Your task to perform on an android device: Open Google Chrome Image 0: 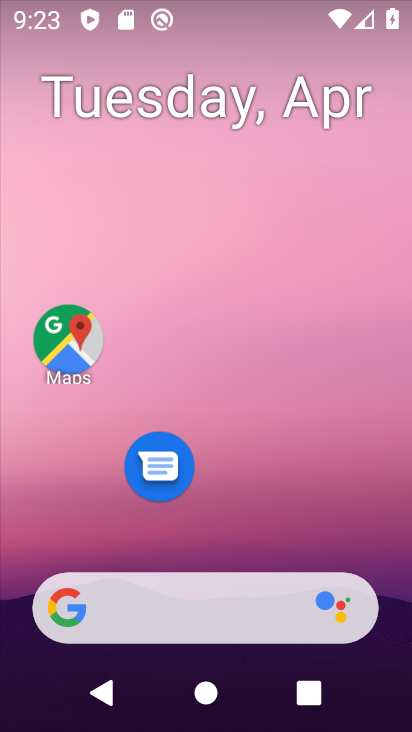
Step 0: drag from (293, 510) to (281, 45)
Your task to perform on an android device: Open Google Chrome Image 1: 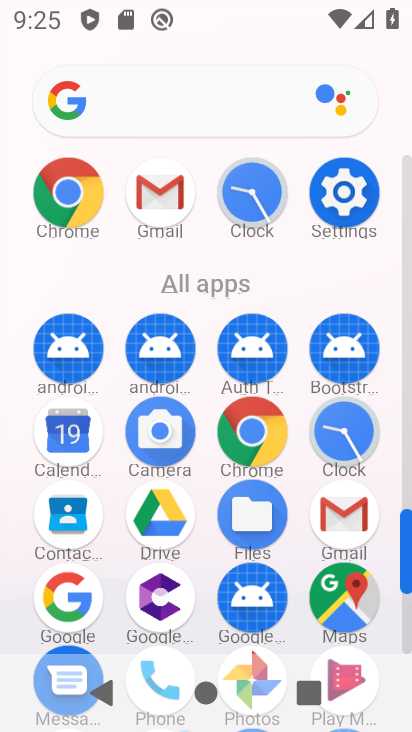
Step 1: click (64, 196)
Your task to perform on an android device: Open Google Chrome Image 2: 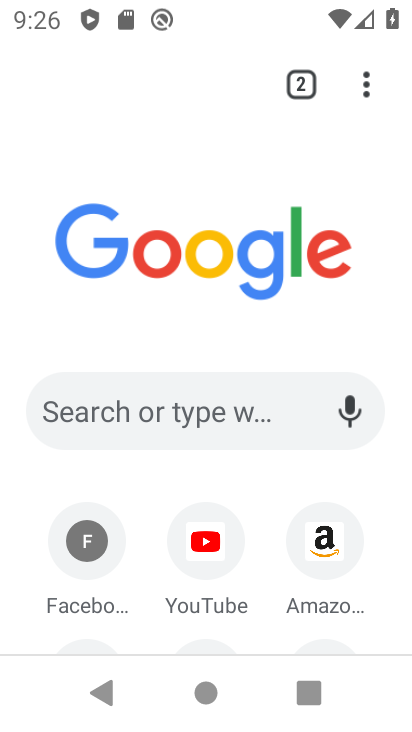
Step 2: task complete